Your task to perform on an android device: Go to Google maps Image 0: 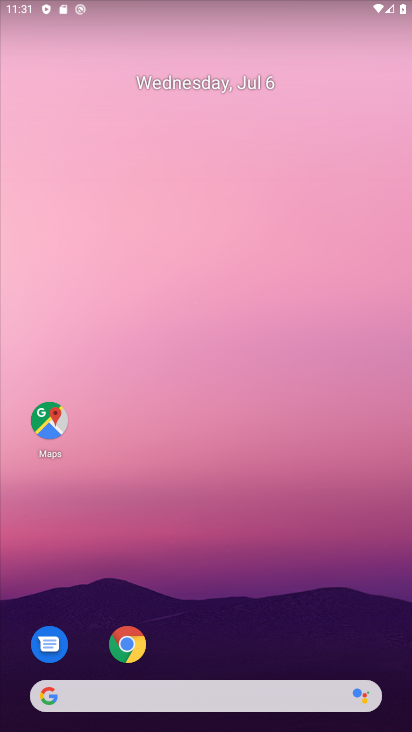
Step 0: click (51, 423)
Your task to perform on an android device: Go to Google maps Image 1: 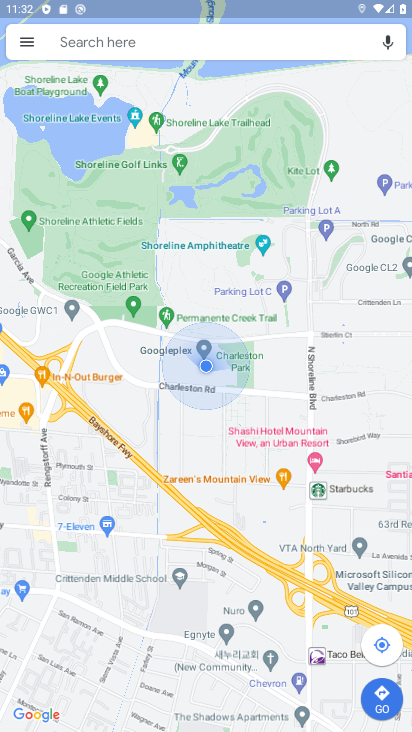
Step 1: task complete